Your task to perform on an android device: open app "Indeed Job Search" (install if not already installed), go to login, and select forgot password Image 0: 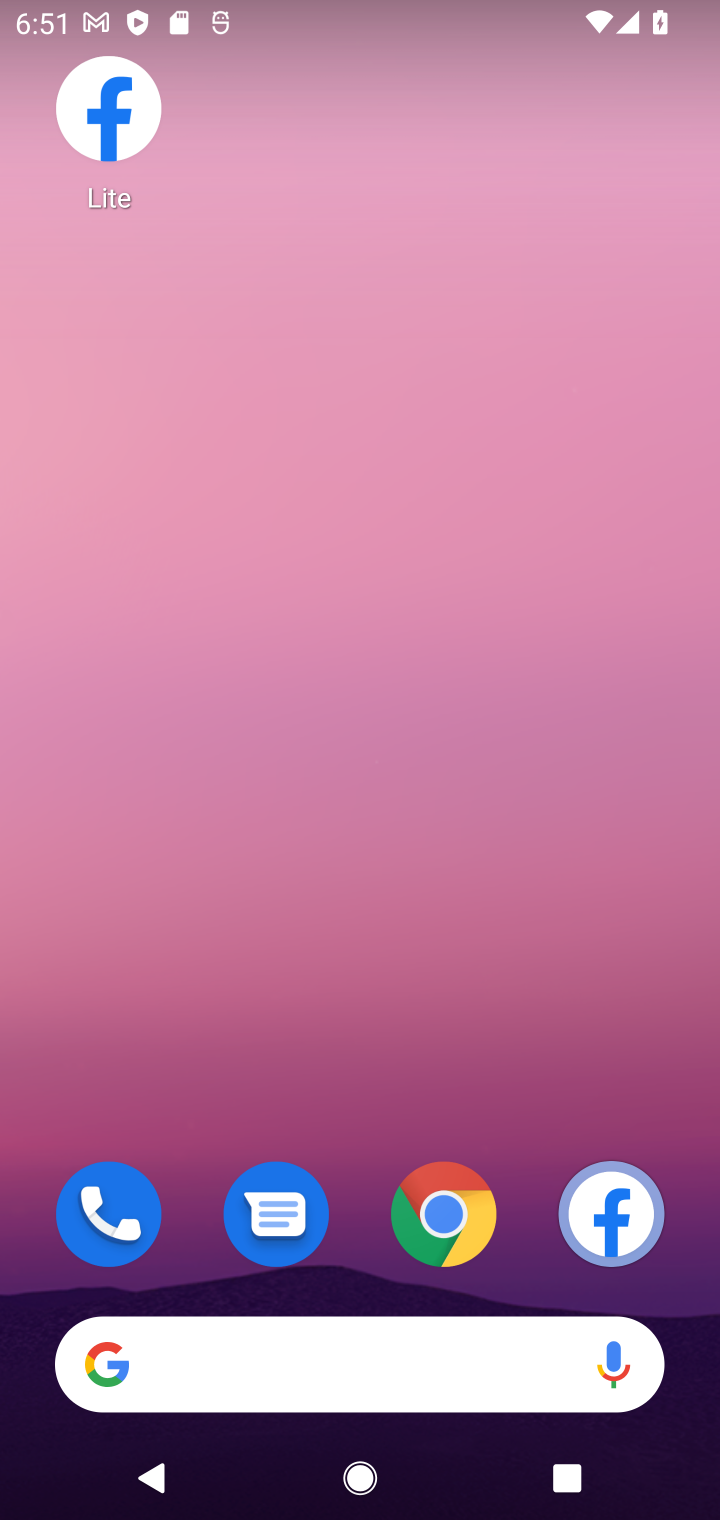
Step 0: drag from (292, 1118) to (410, 4)
Your task to perform on an android device: open app "Indeed Job Search" (install if not already installed), go to login, and select forgot password Image 1: 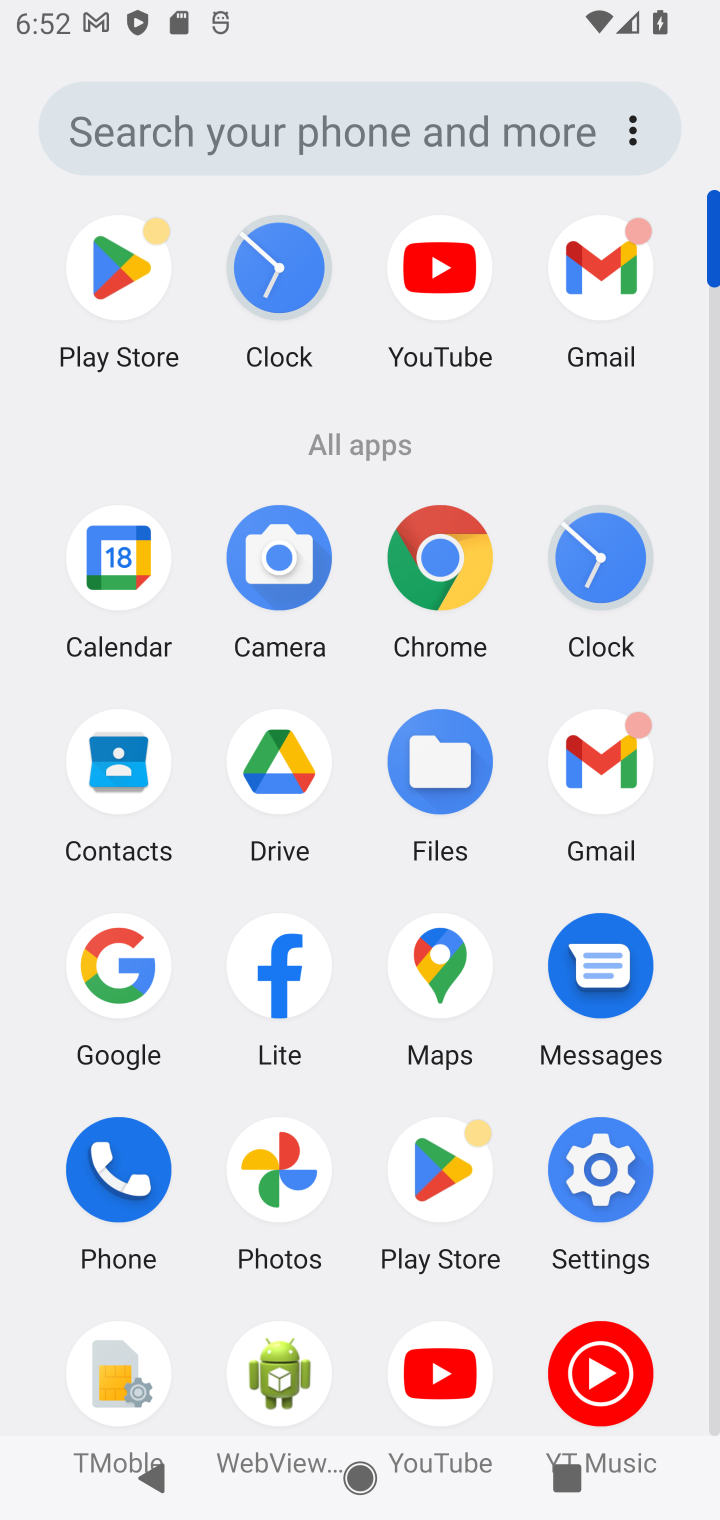
Step 1: click (111, 281)
Your task to perform on an android device: open app "Indeed Job Search" (install if not already installed), go to login, and select forgot password Image 2: 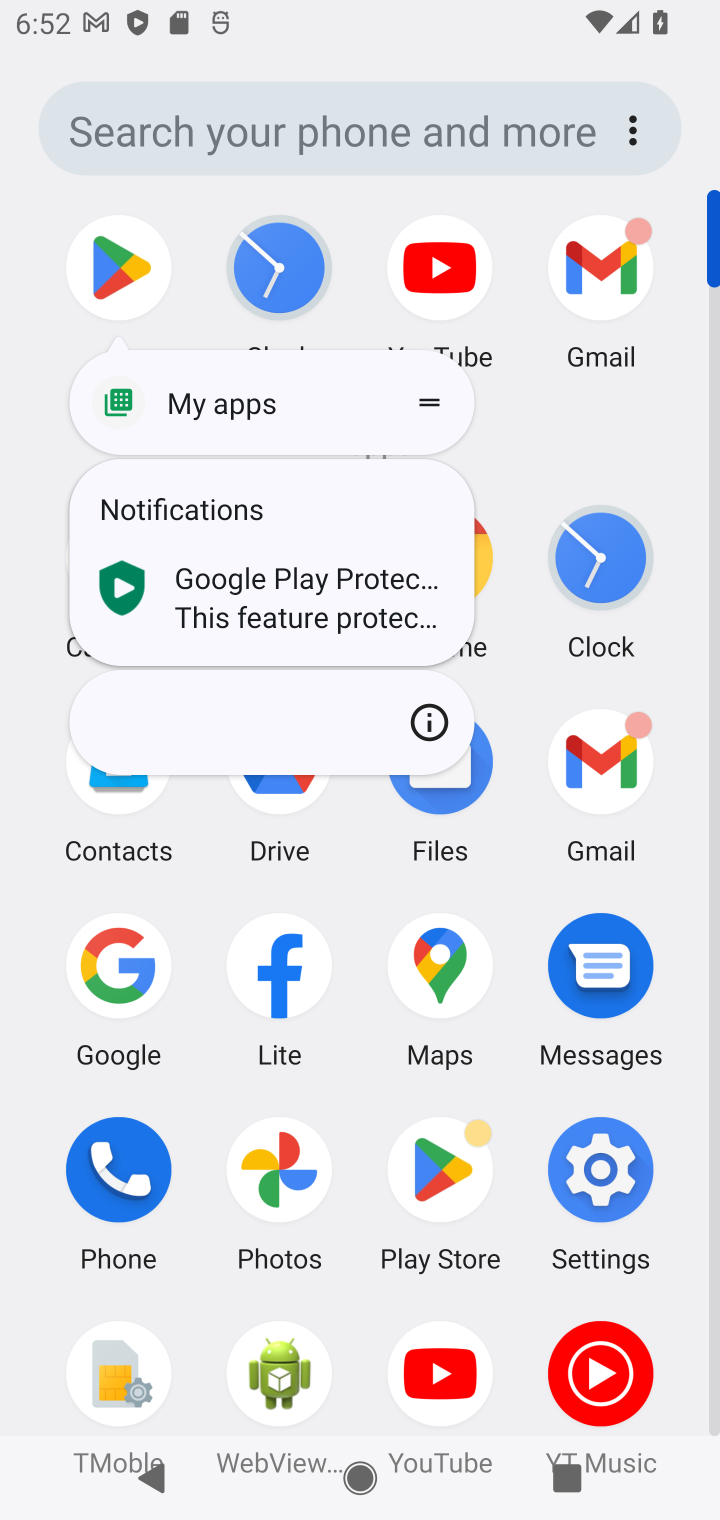
Step 2: click (101, 267)
Your task to perform on an android device: open app "Indeed Job Search" (install if not already installed), go to login, and select forgot password Image 3: 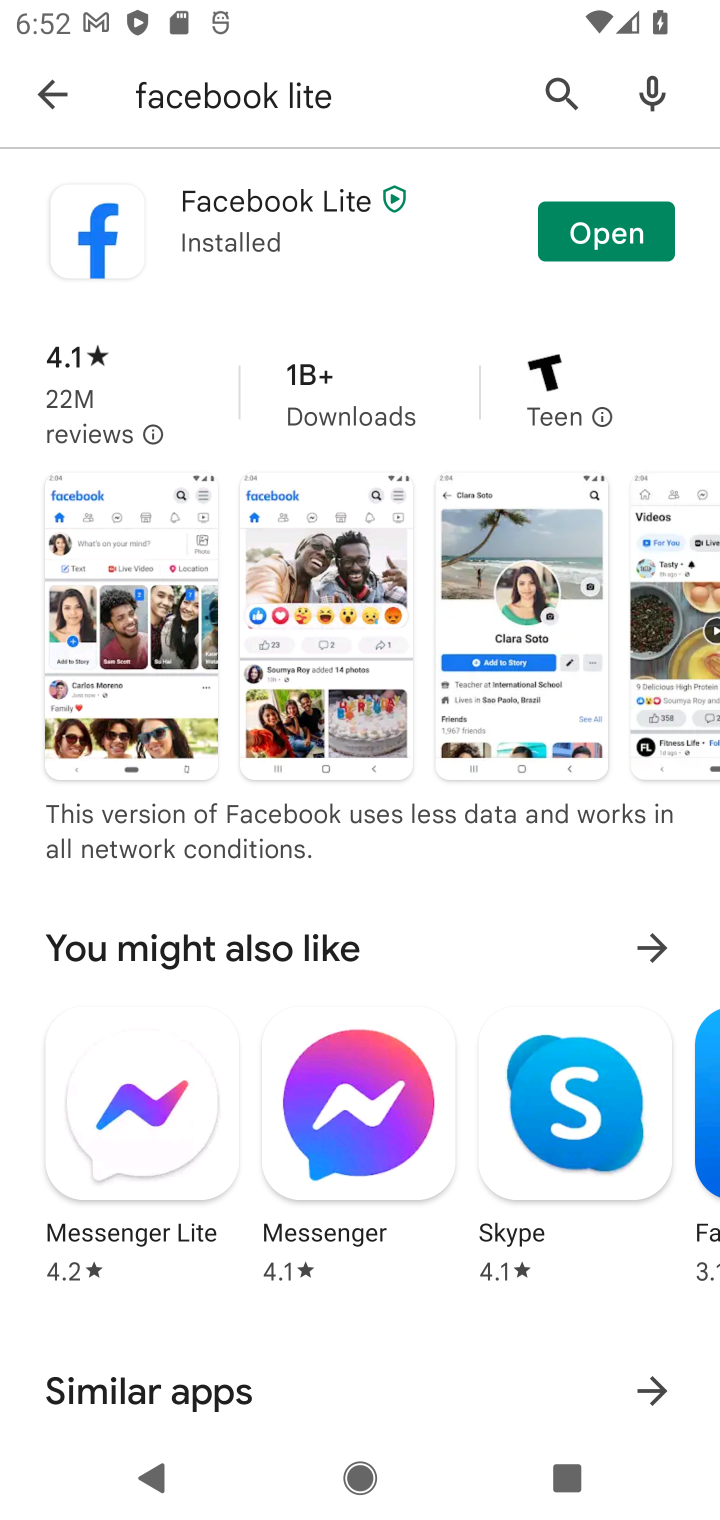
Step 3: click (542, 87)
Your task to perform on an android device: open app "Indeed Job Search" (install if not already installed), go to login, and select forgot password Image 4: 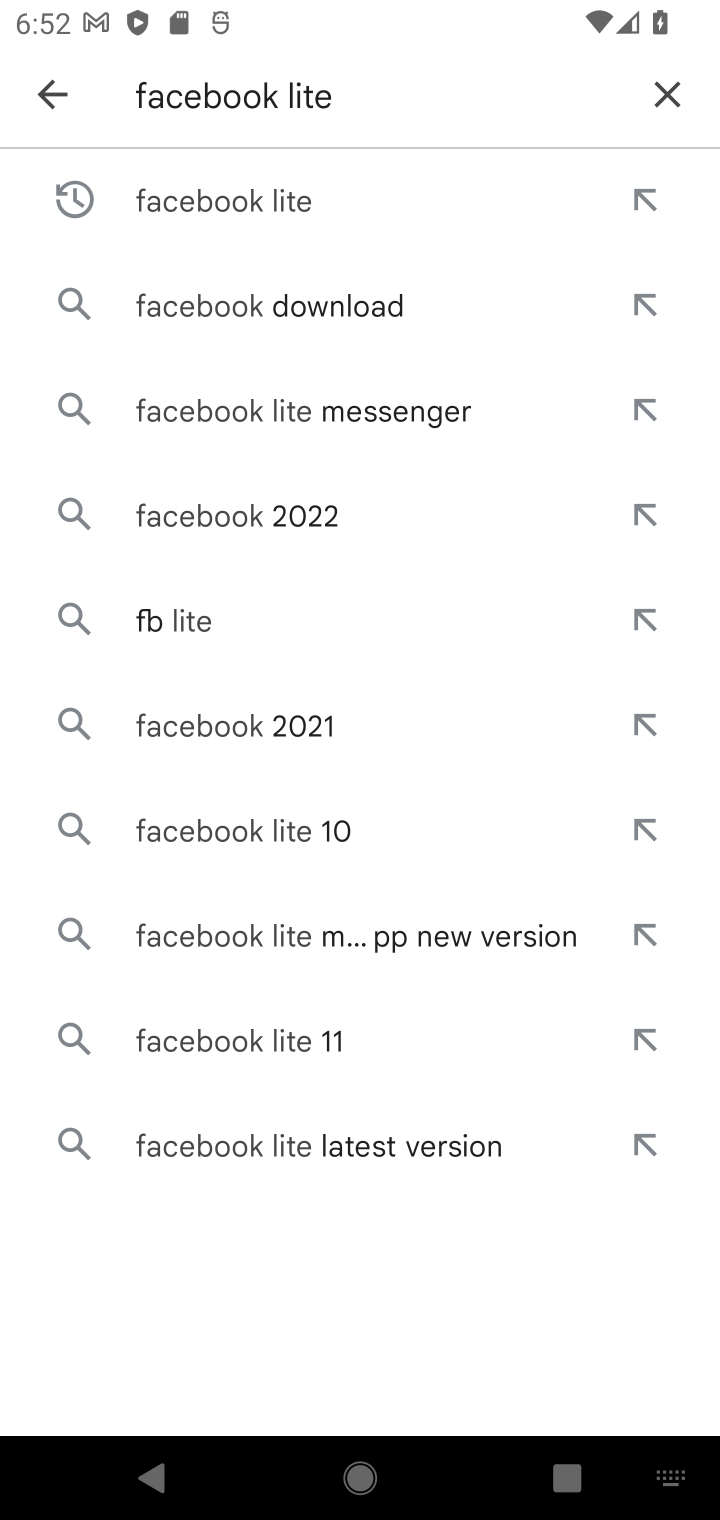
Step 4: click (666, 93)
Your task to perform on an android device: open app "Indeed Job Search" (install if not already installed), go to login, and select forgot password Image 5: 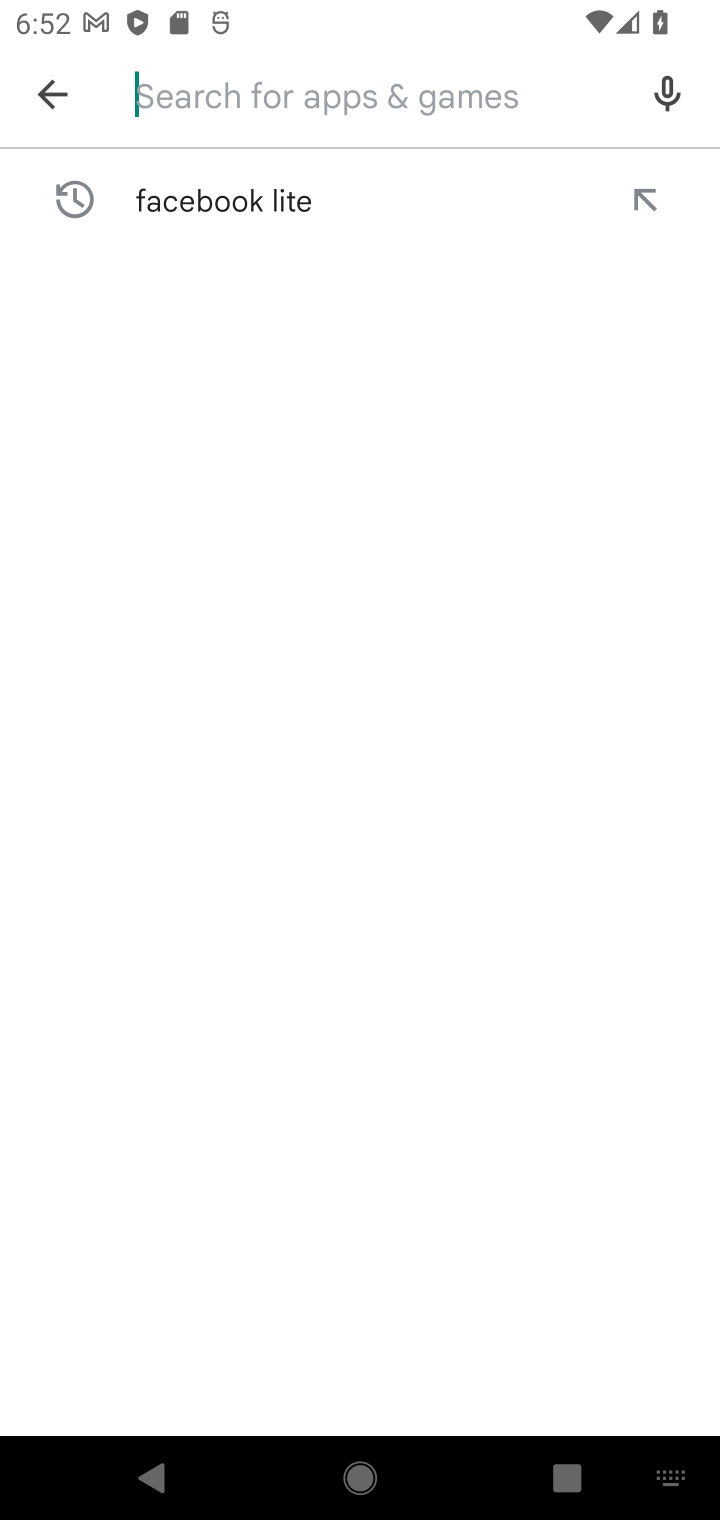
Step 5: click (363, 93)
Your task to perform on an android device: open app "Indeed Job Search" (install if not already installed), go to login, and select forgot password Image 6: 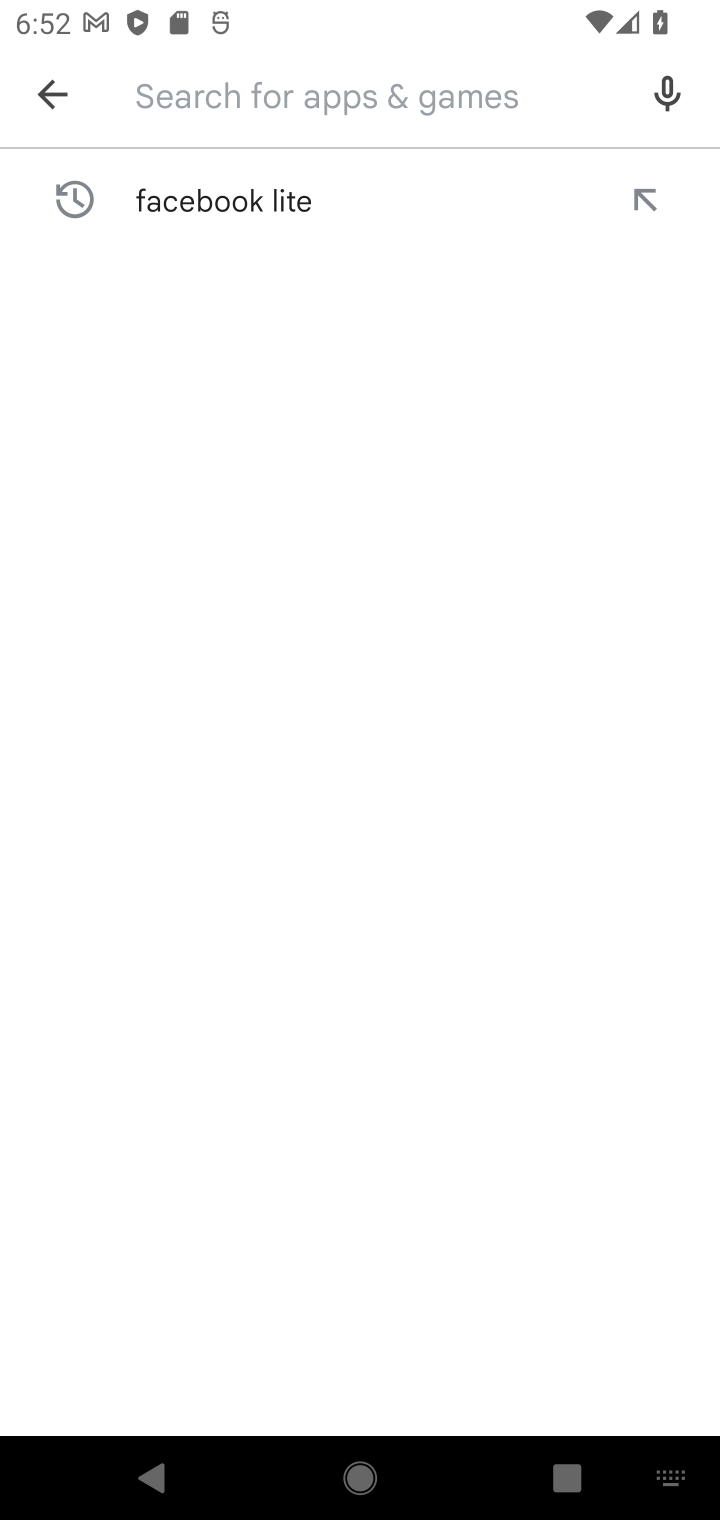
Step 6: type "indeed job search"
Your task to perform on an android device: open app "Indeed Job Search" (install if not already installed), go to login, and select forgot password Image 7: 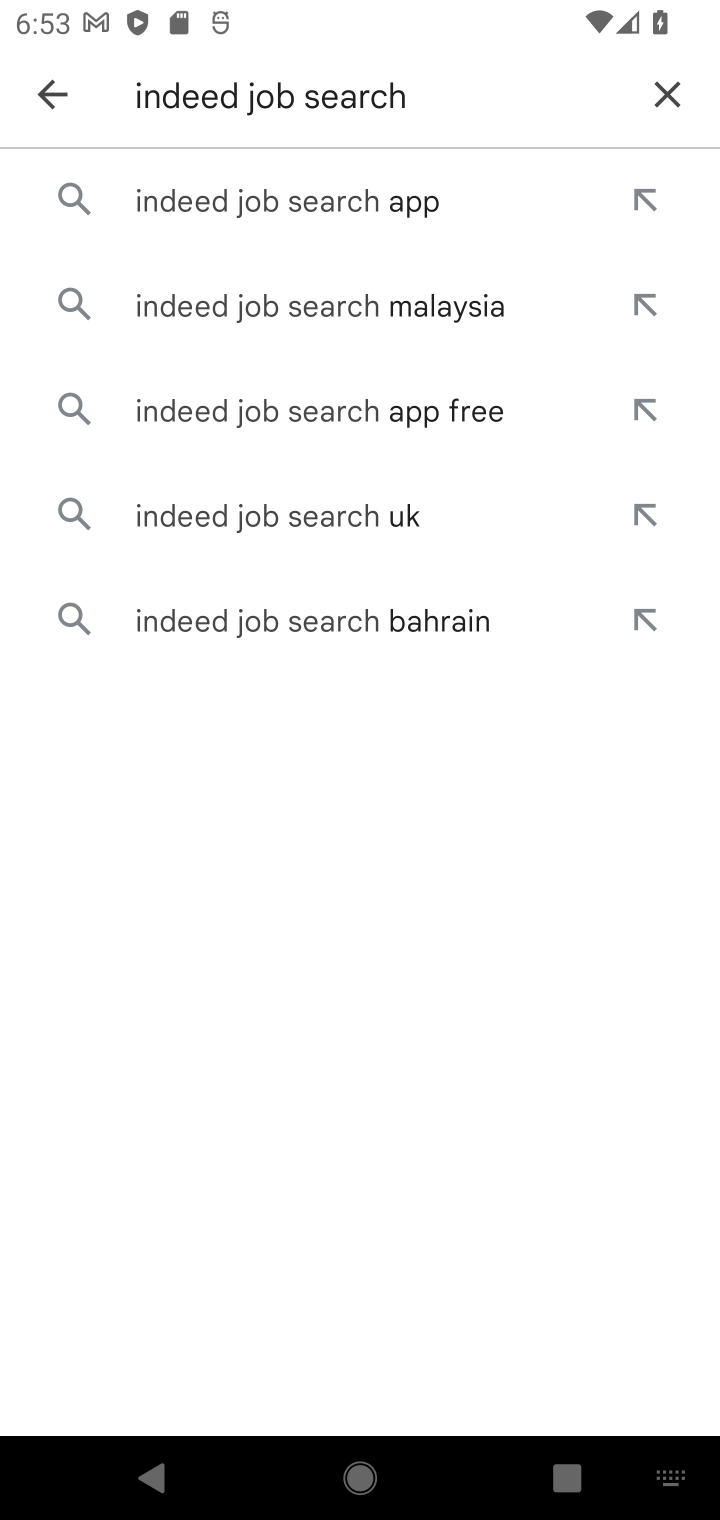
Step 7: click (357, 198)
Your task to perform on an android device: open app "Indeed Job Search" (install if not already installed), go to login, and select forgot password Image 8: 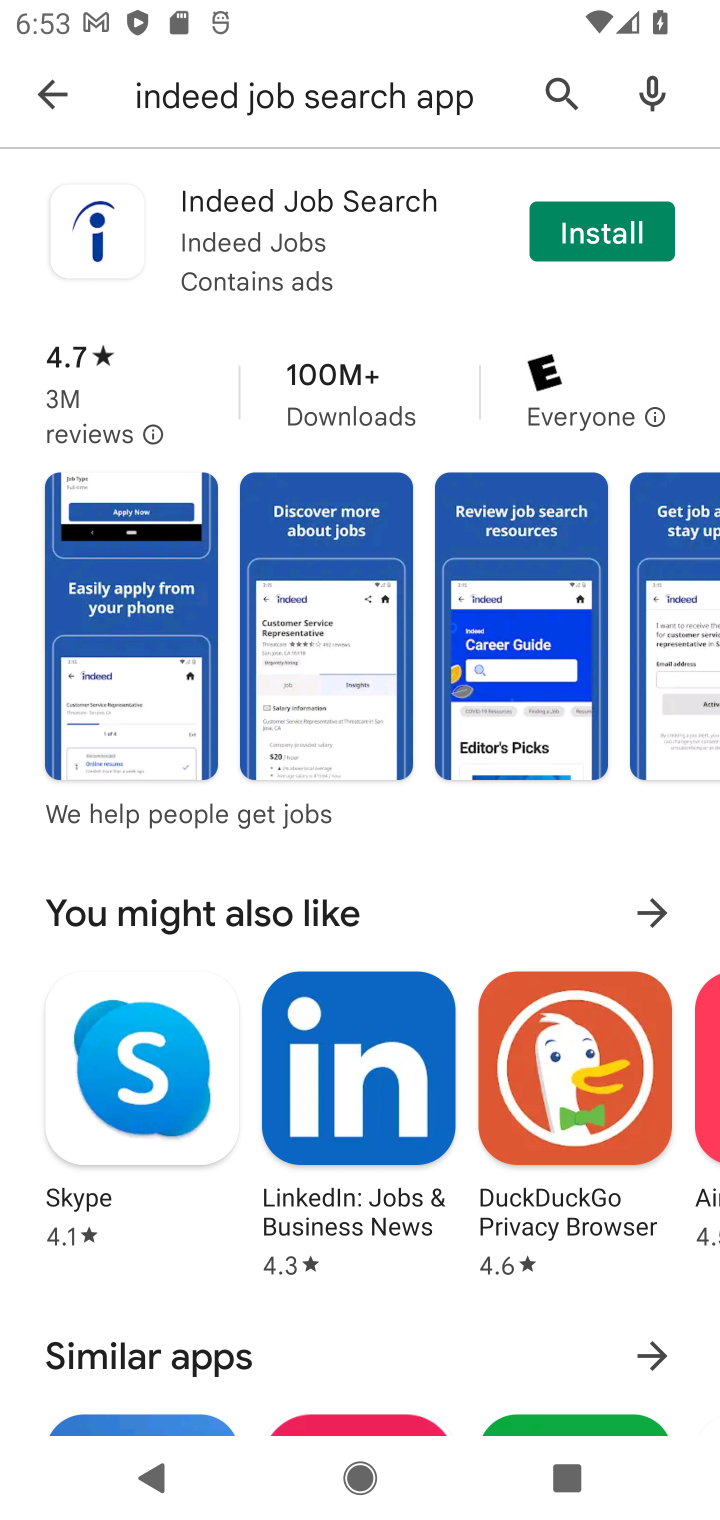
Step 8: click (605, 230)
Your task to perform on an android device: open app "Indeed Job Search" (install if not already installed), go to login, and select forgot password Image 9: 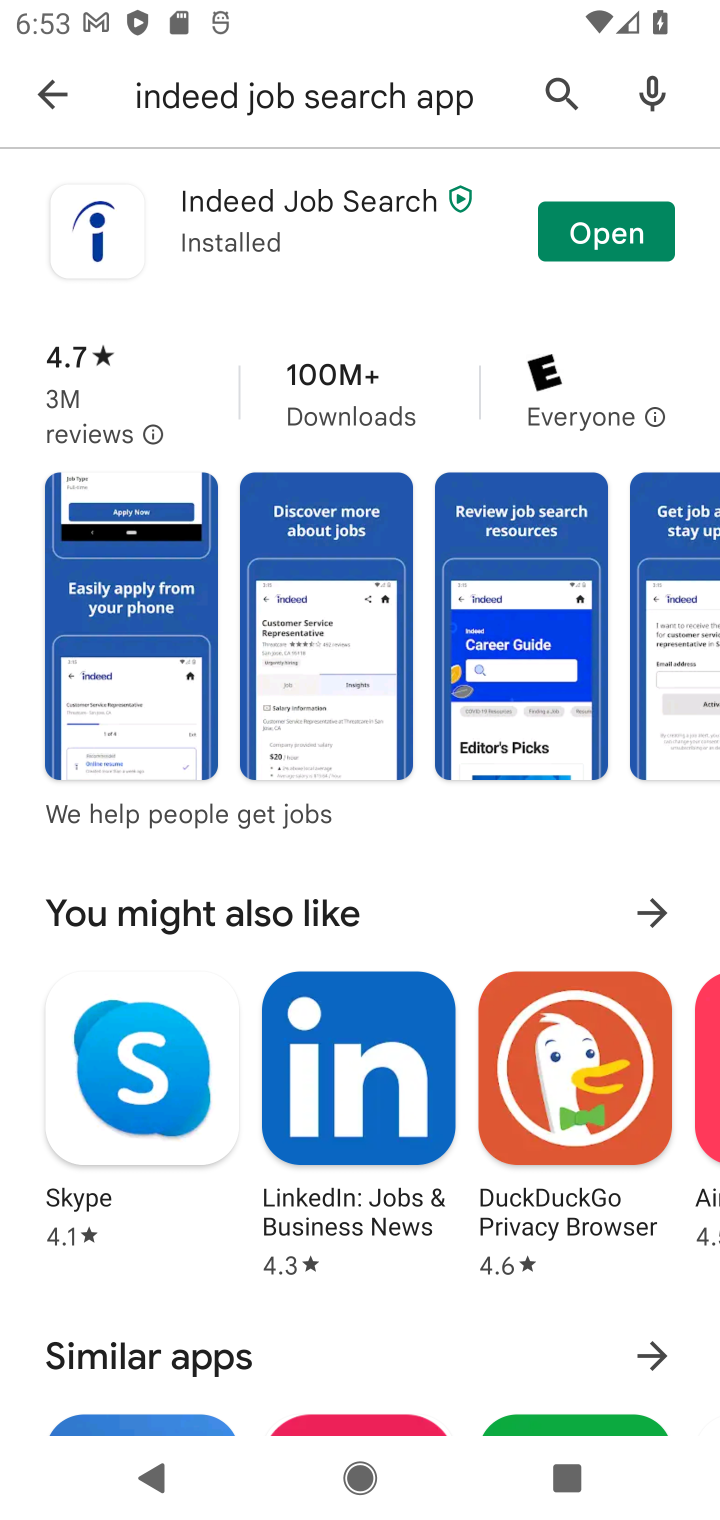
Step 9: click (613, 233)
Your task to perform on an android device: open app "Indeed Job Search" (install if not already installed), go to login, and select forgot password Image 10: 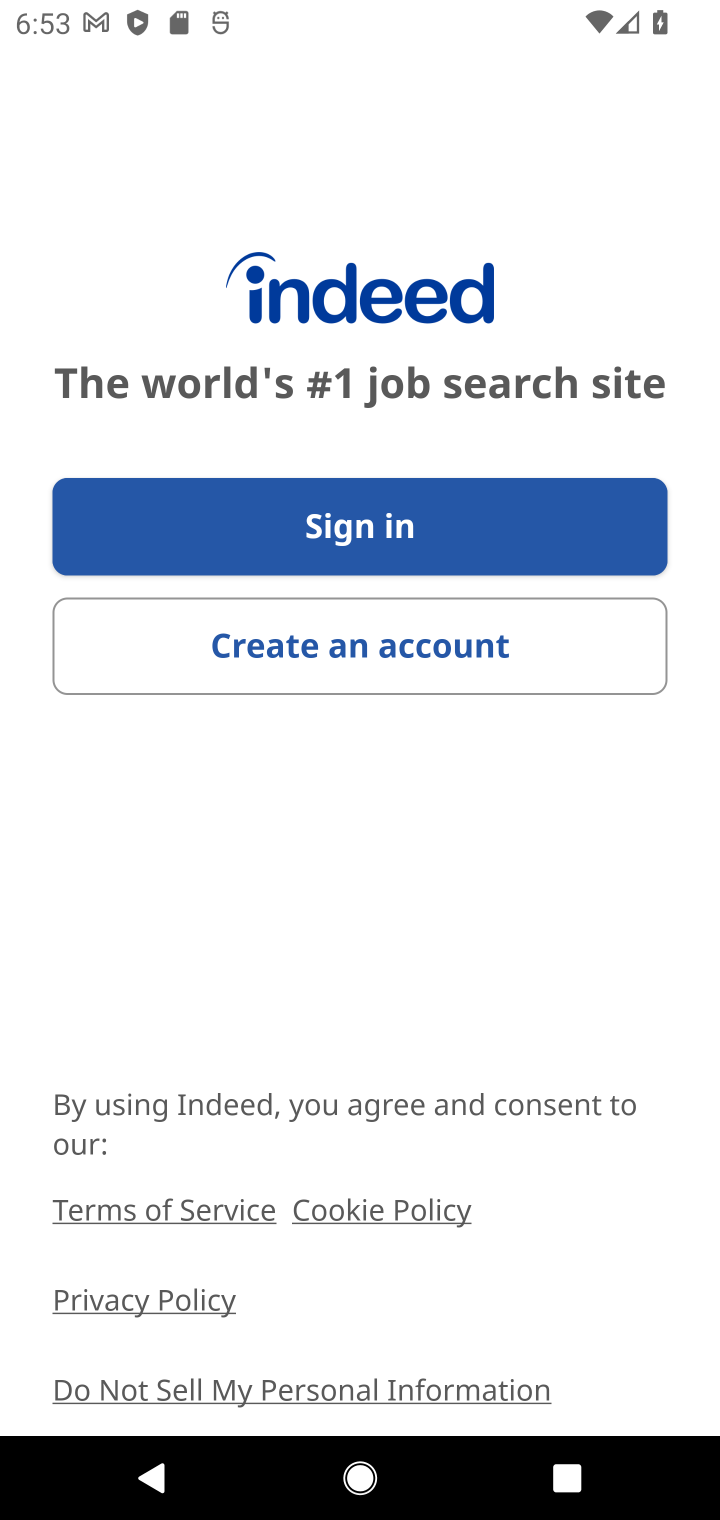
Step 10: click (389, 535)
Your task to perform on an android device: open app "Indeed Job Search" (install if not already installed), go to login, and select forgot password Image 11: 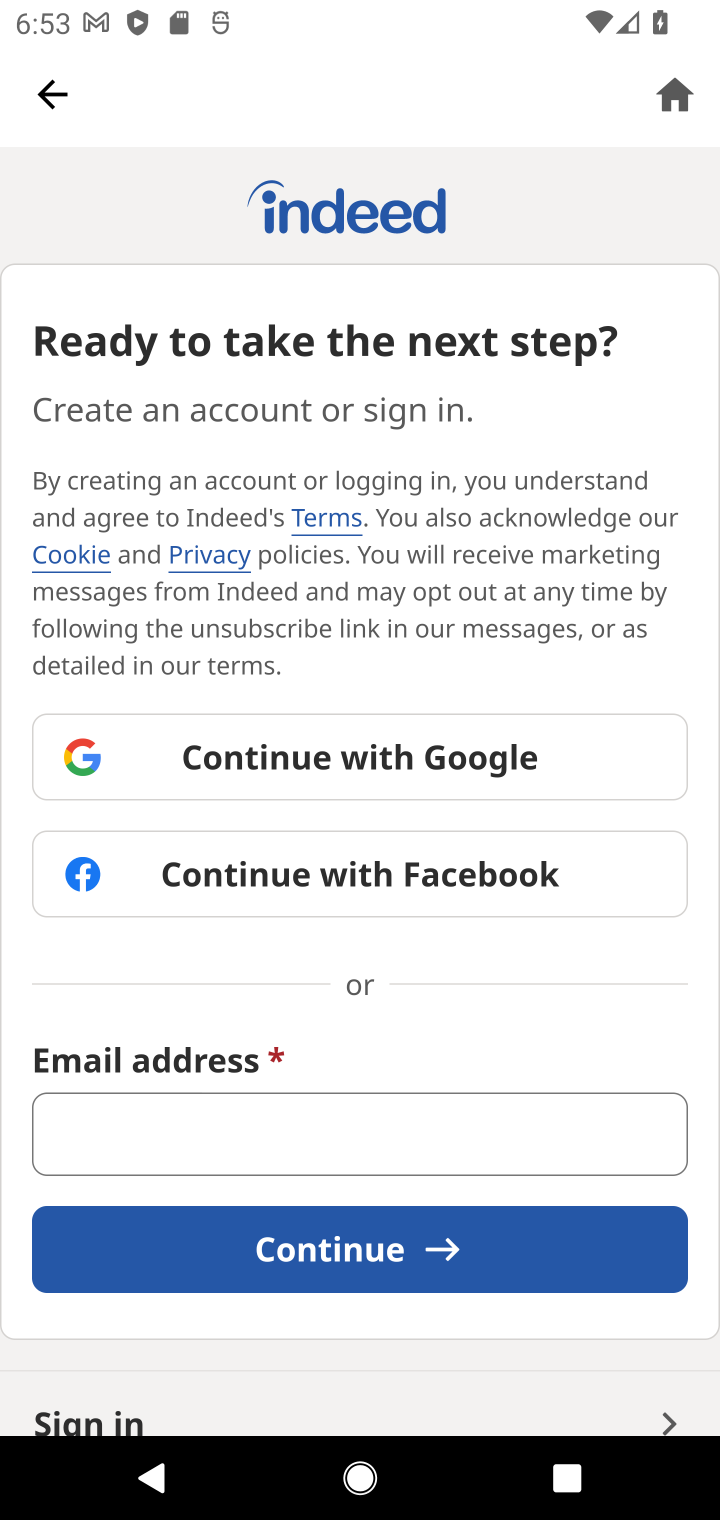
Step 11: drag from (332, 1171) to (554, 672)
Your task to perform on an android device: open app "Indeed Job Search" (install if not already installed), go to login, and select forgot password Image 12: 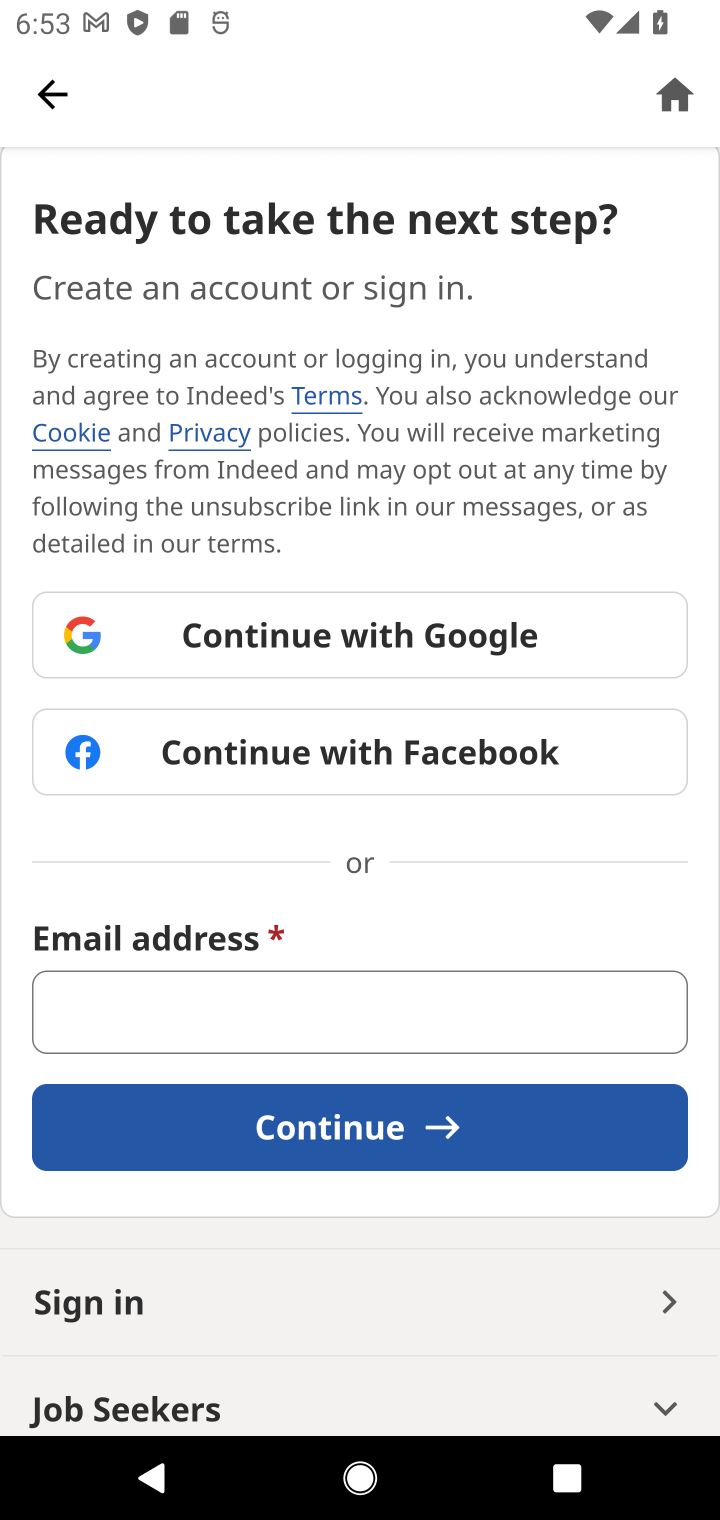
Step 12: press back button
Your task to perform on an android device: open app "Indeed Job Search" (install if not already installed), go to login, and select forgot password Image 13: 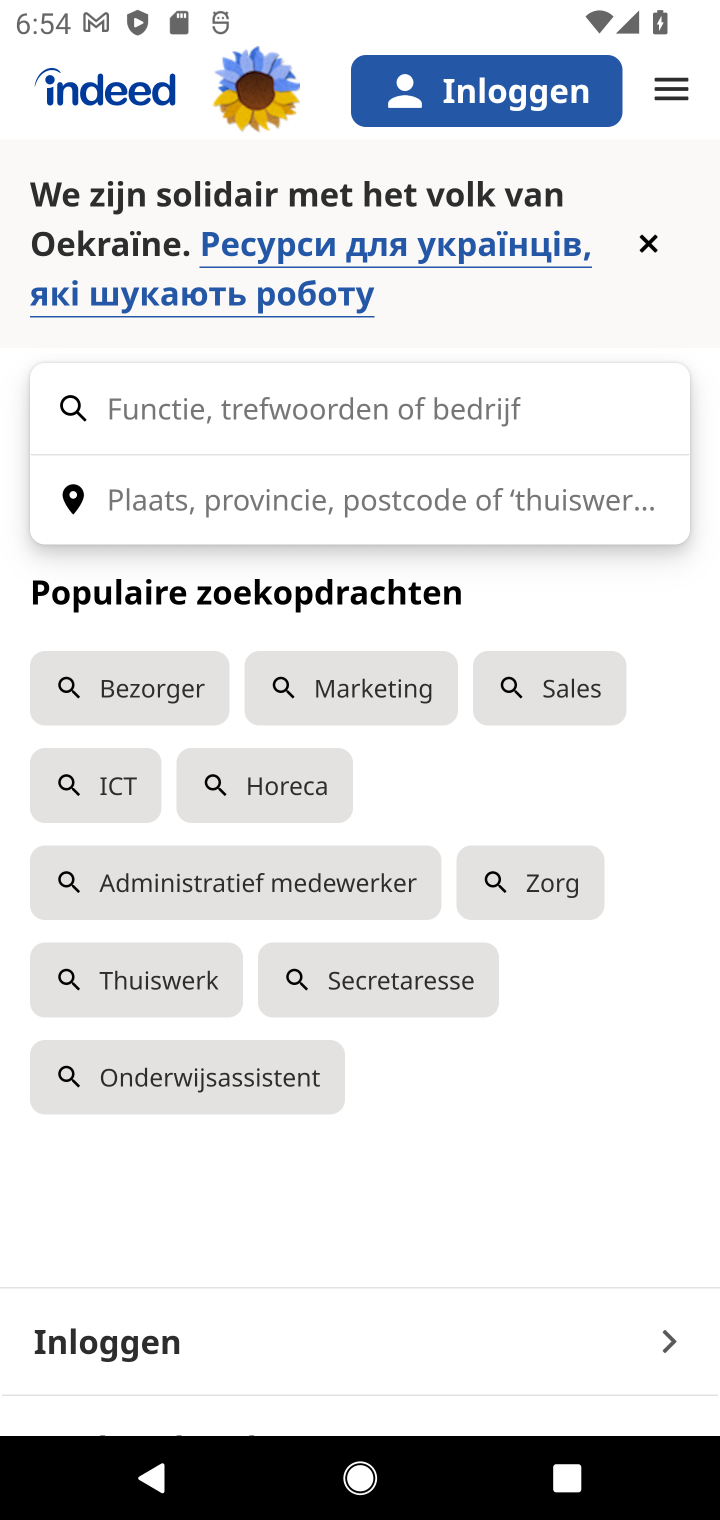
Step 13: click (502, 101)
Your task to perform on an android device: open app "Indeed Job Search" (install if not already installed), go to login, and select forgot password Image 14: 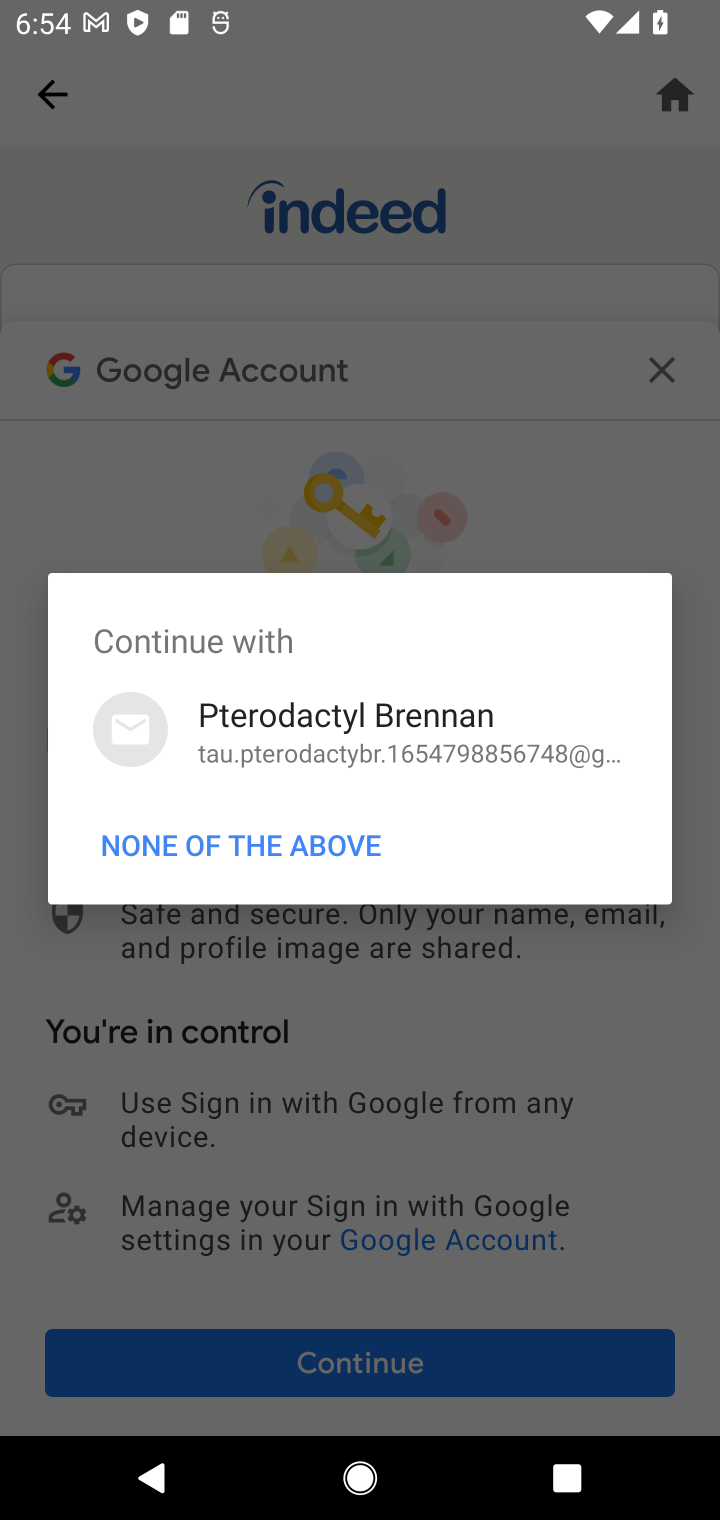
Step 14: task complete